Your task to perform on an android device: What's the weather today? Image 0: 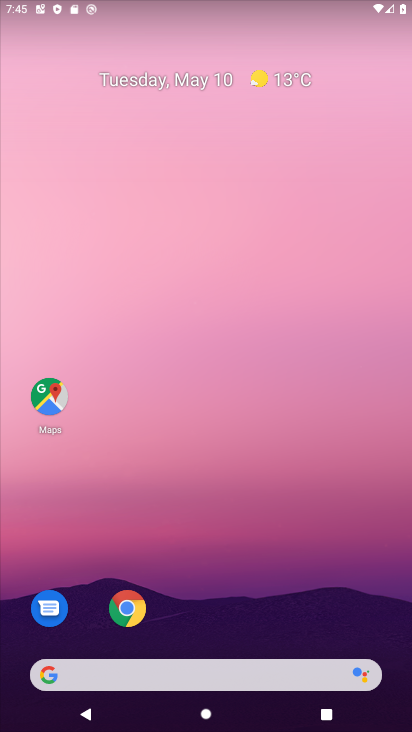
Step 0: drag from (247, 616) to (200, 226)
Your task to perform on an android device: What's the weather today? Image 1: 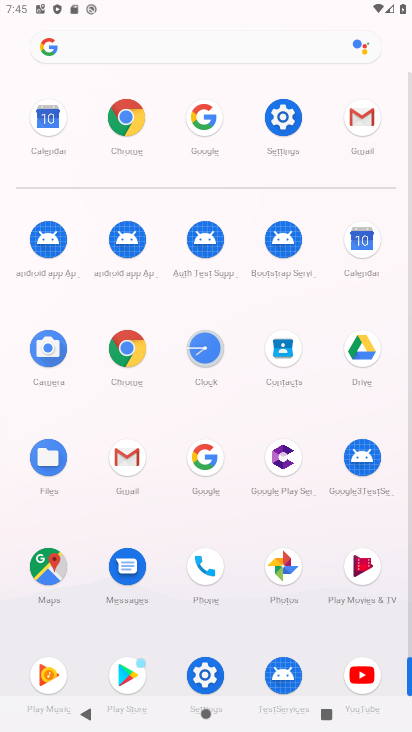
Step 1: click (214, 483)
Your task to perform on an android device: What's the weather today? Image 2: 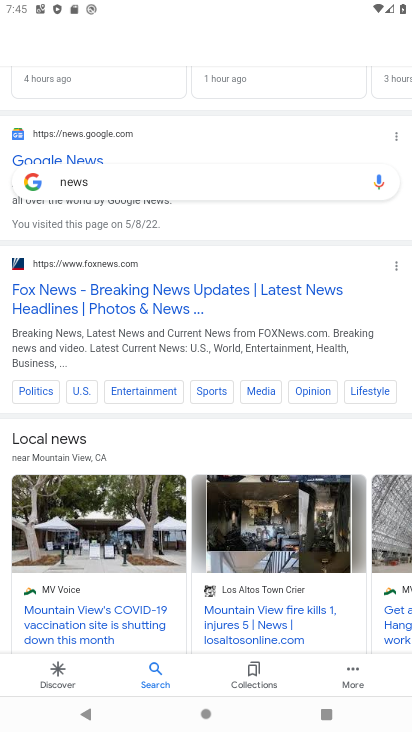
Step 2: click (214, 195)
Your task to perform on an android device: What's the weather today? Image 3: 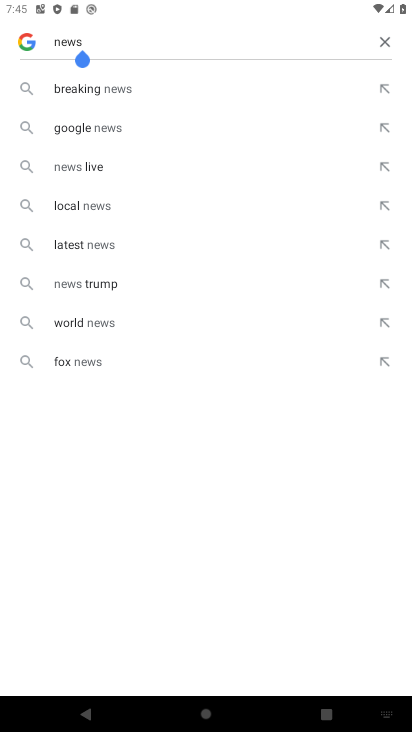
Step 3: click (379, 35)
Your task to perform on an android device: What's the weather today? Image 4: 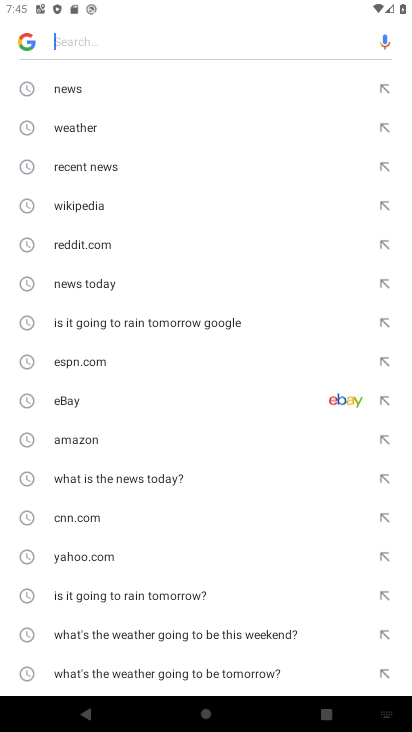
Step 4: click (100, 138)
Your task to perform on an android device: What's the weather today? Image 5: 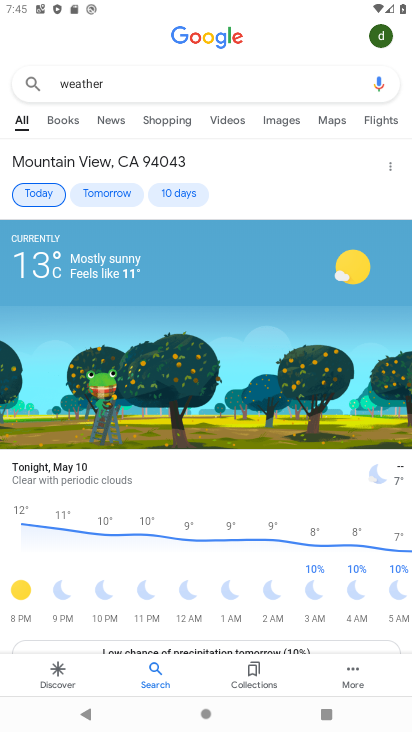
Step 5: task complete